Your task to perform on an android device: turn on airplane mode Image 0: 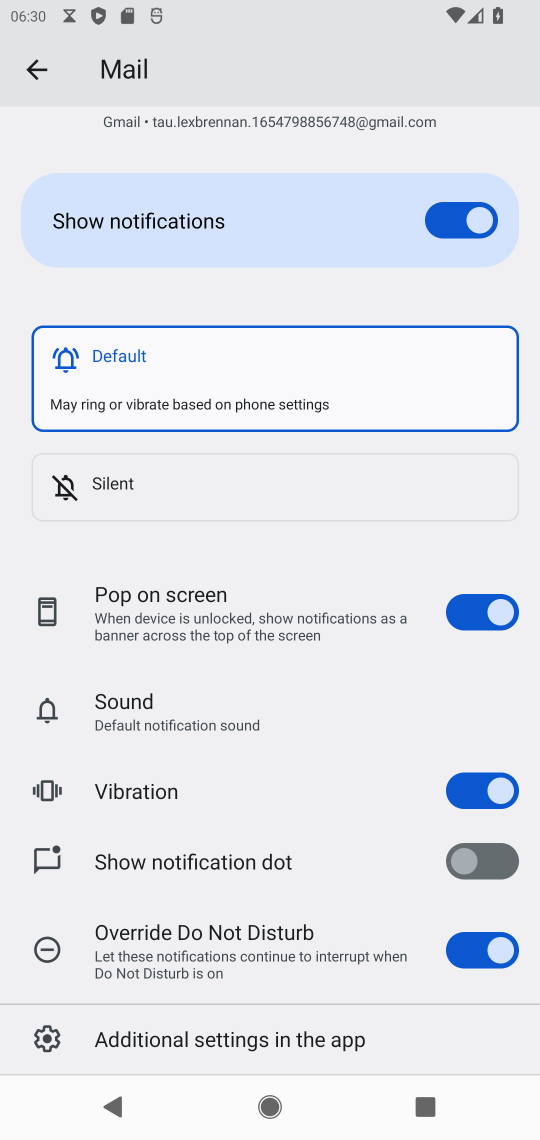
Step 0: press home button
Your task to perform on an android device: turn on airplane mode Image 1: 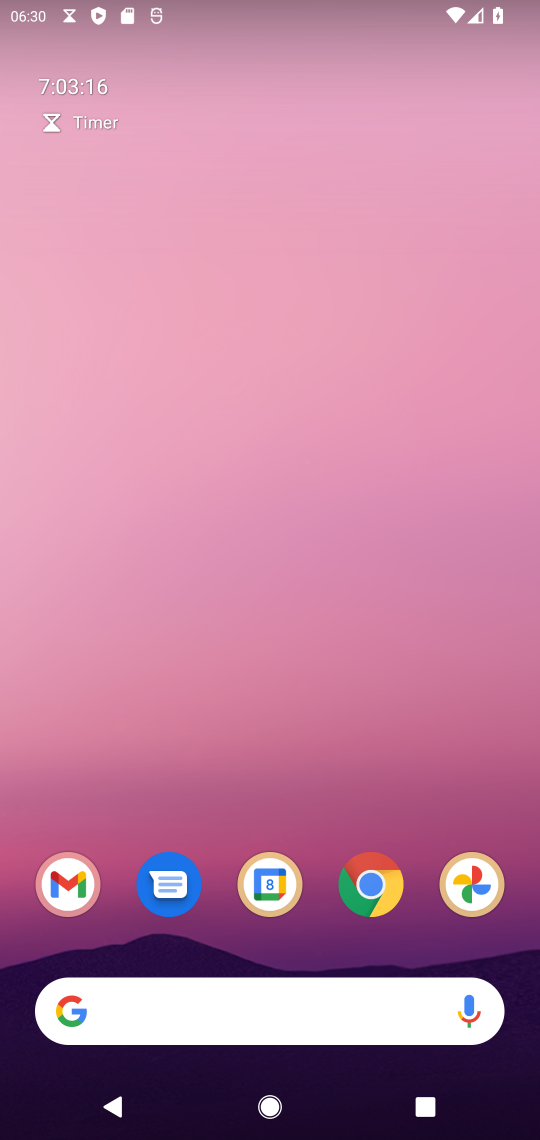
Step 1: drag from (409, 812) to (275, 31)
Your task to perform on an android device: turn on airplane mode Image 2: 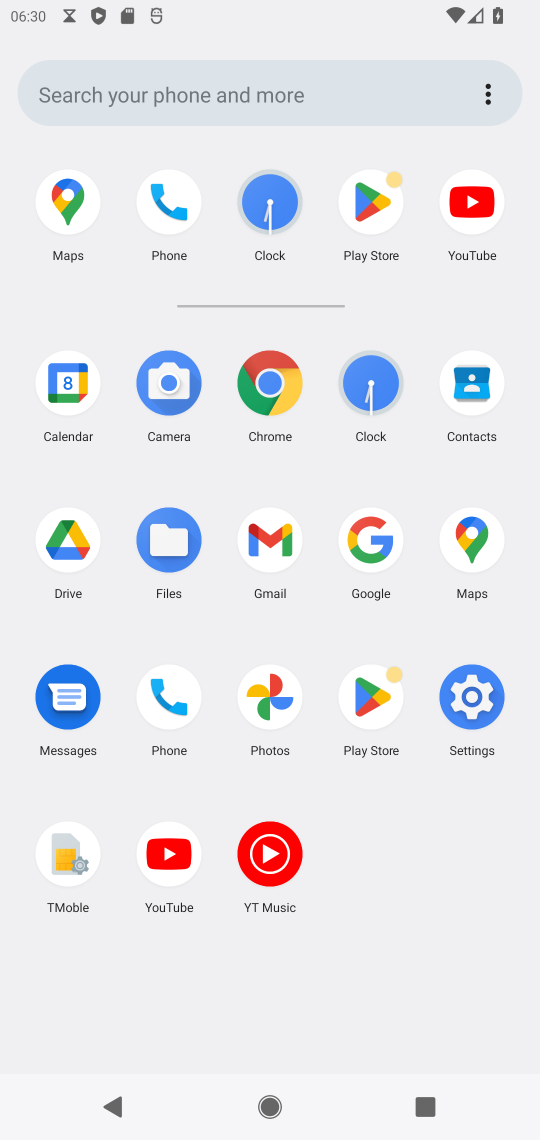
Step 2: click (488, 750)
Your task to perform on an android device: turn on airplane mode Image 3: 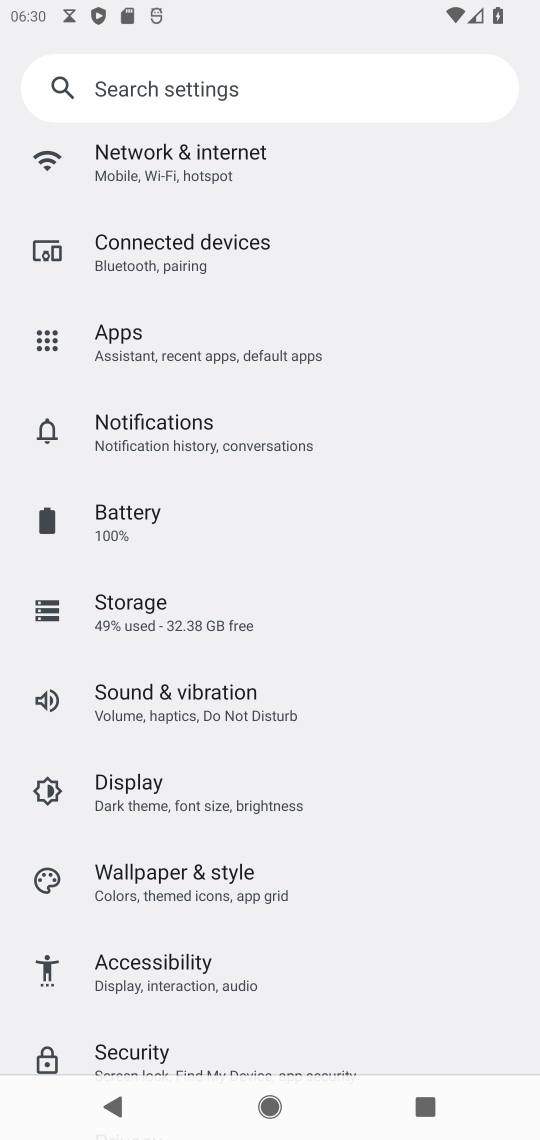
Step 3: click (247, 162)
Your task to perform on an android device: turn on airplane mode Image 4: 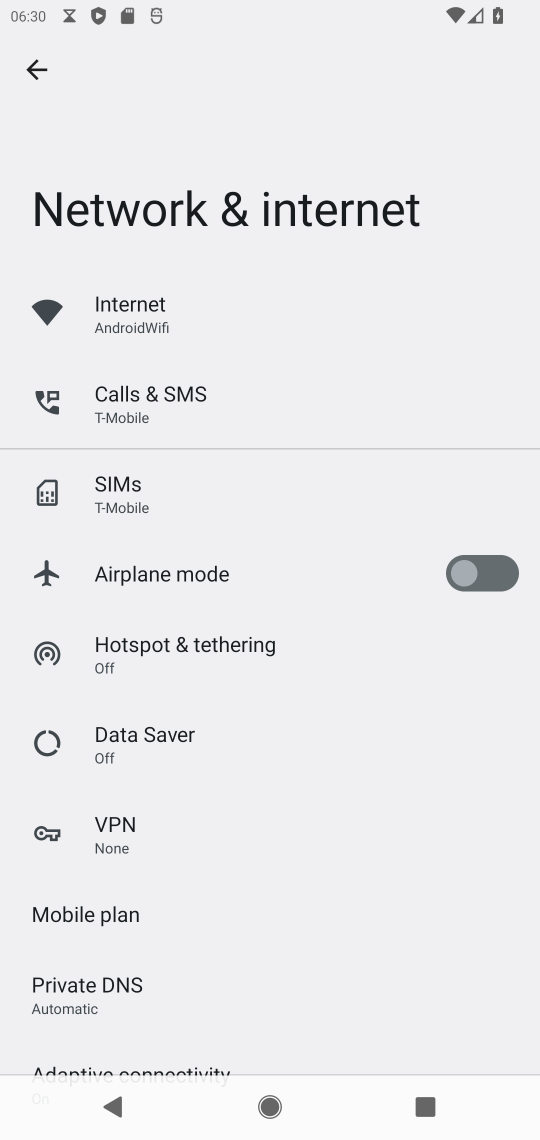
Step 4: click (490, 564)
Your task to perform on an android device: turn on airplane mode Image 5: 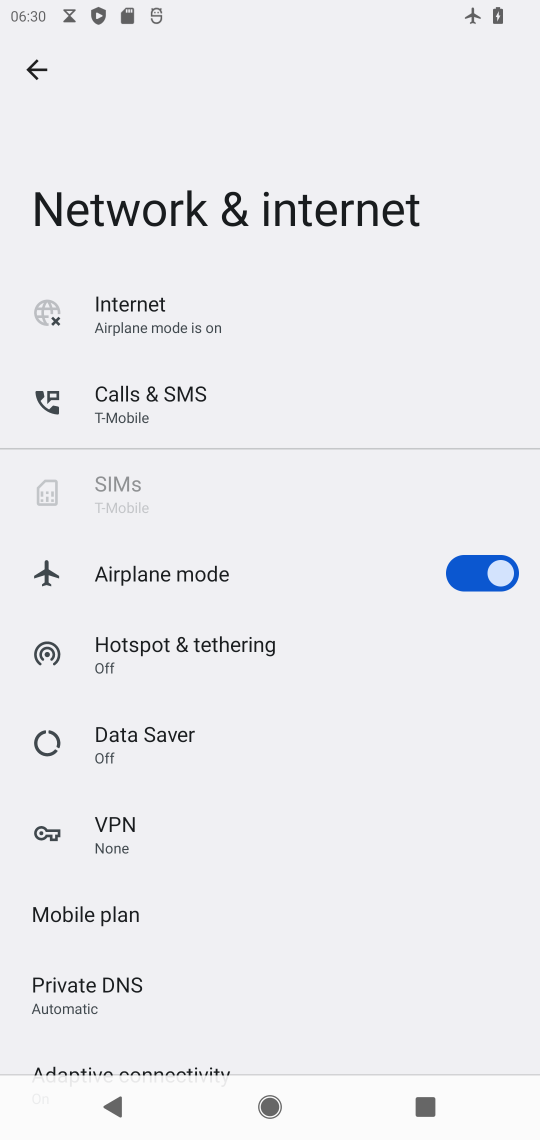
Step 5: task complete